Your task to perform on an android device: turn on the 24-hour format for clock Image 0: 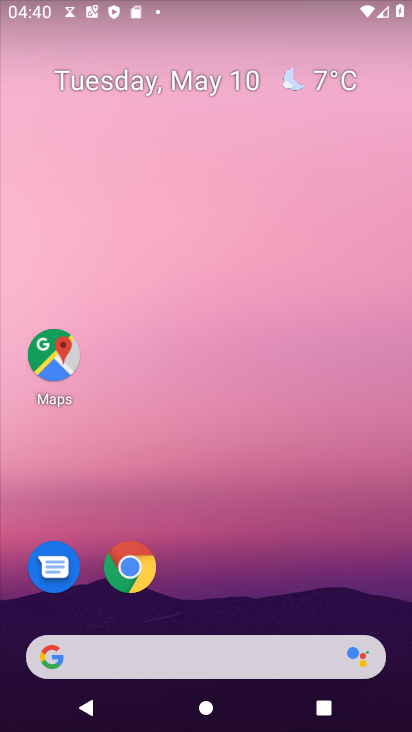
Step 0: drag from (258, 592) to (218, 49)
Your task to perform on an android device: turn on the 24-hour format for clock Image 1: 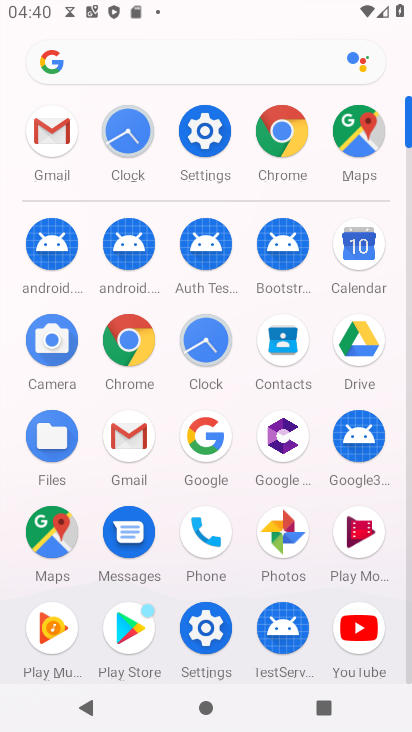
Step 1: click (127, 132)
Your task to perform on an android device: turn on the 24-hour format for clock Image 2: 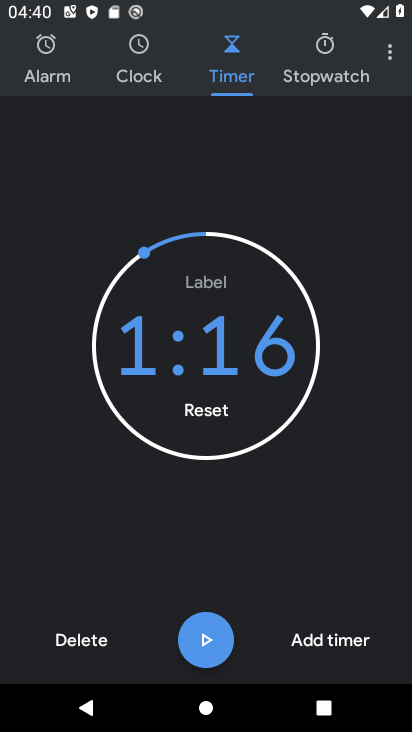
Step 2: click (390, 53)
Your task to perform on an android device: turn on the 24-hour format for clock Image 3: 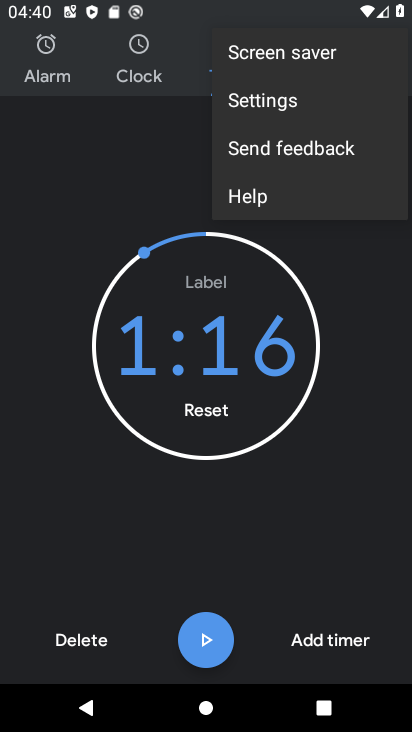
Step 3: click (290, 100)
Your task to perform on an android device: turn on the 24-hour format for clock Image 4: 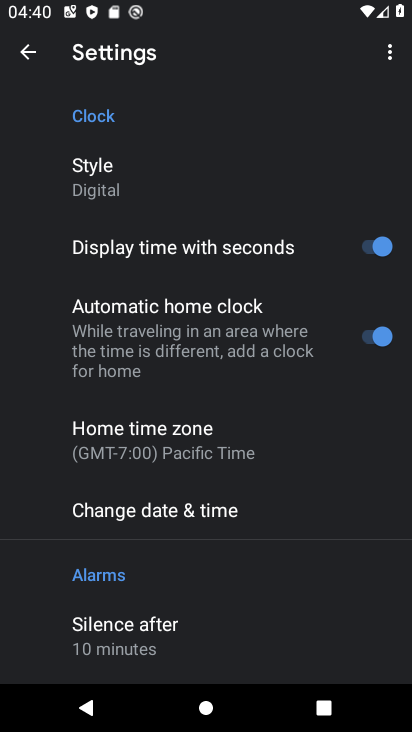
Step 4: drag from (224, 601) to (259, 488)
Your task to perform on an android device: turn on the 24-hour format for clock Image 5: 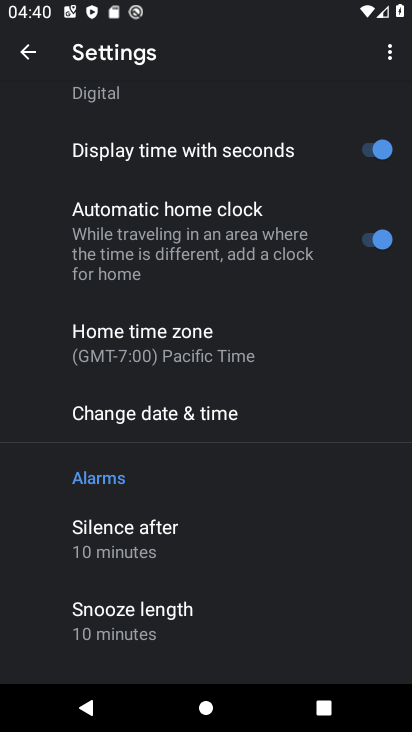
Step 5: click (193, 427)
Your task to perform on an android device: turn on the 24-hour format for clock Image 6: 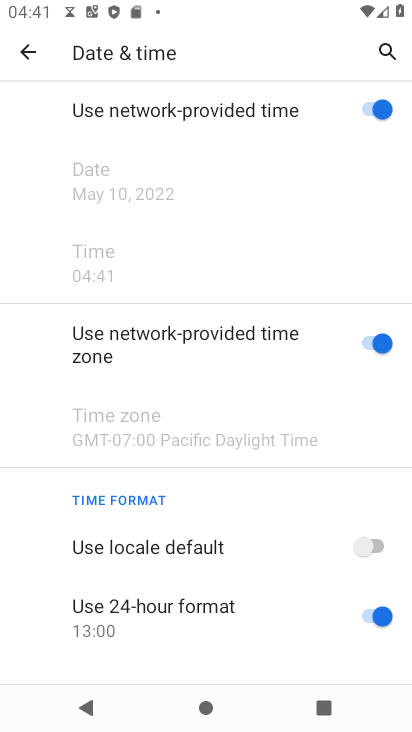
Step 6: task complete